Your task to perform on an android device: open app "eBay: The shopping marketplace" (install if not already installed) Image 0: 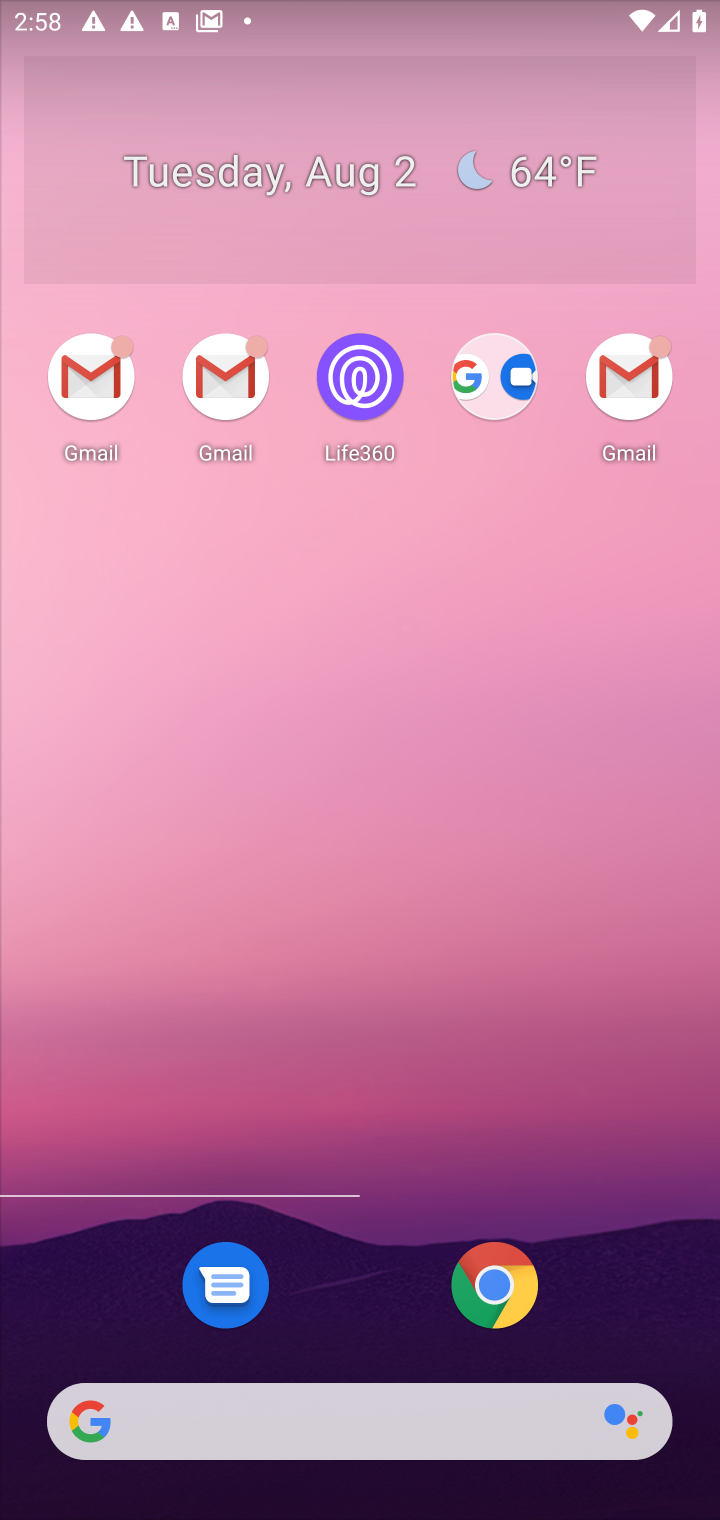
Step 0: drag from (541, 1125) to (279, 139)
Your task to perform on an android device: open app "eBay: The shopping marketplace" (install if not already installed) Image 1: 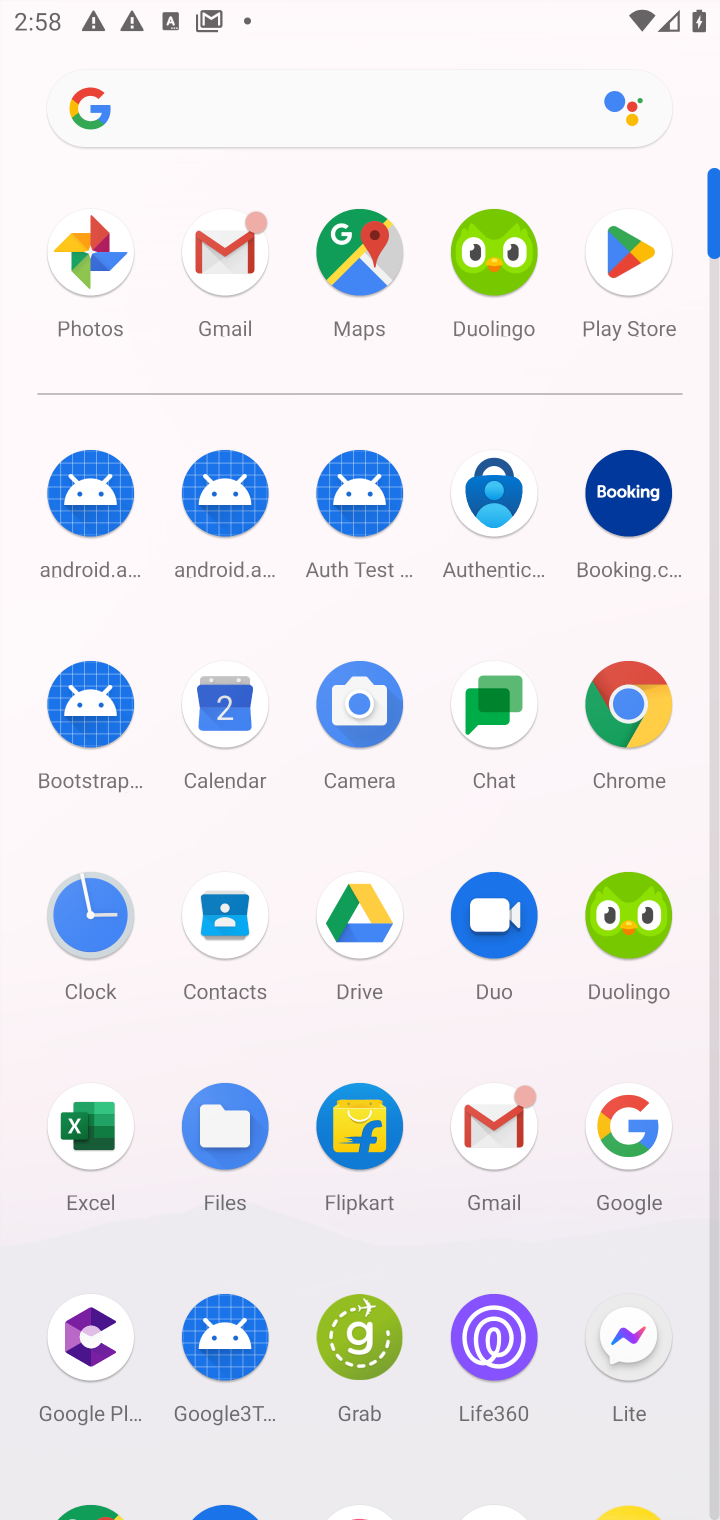
Step 1: drag from (437, 1271) to (400, 330)
Your task to perform on an android device: open app "eBay: The shopping marketplace" (install if not already installed) Image 2: 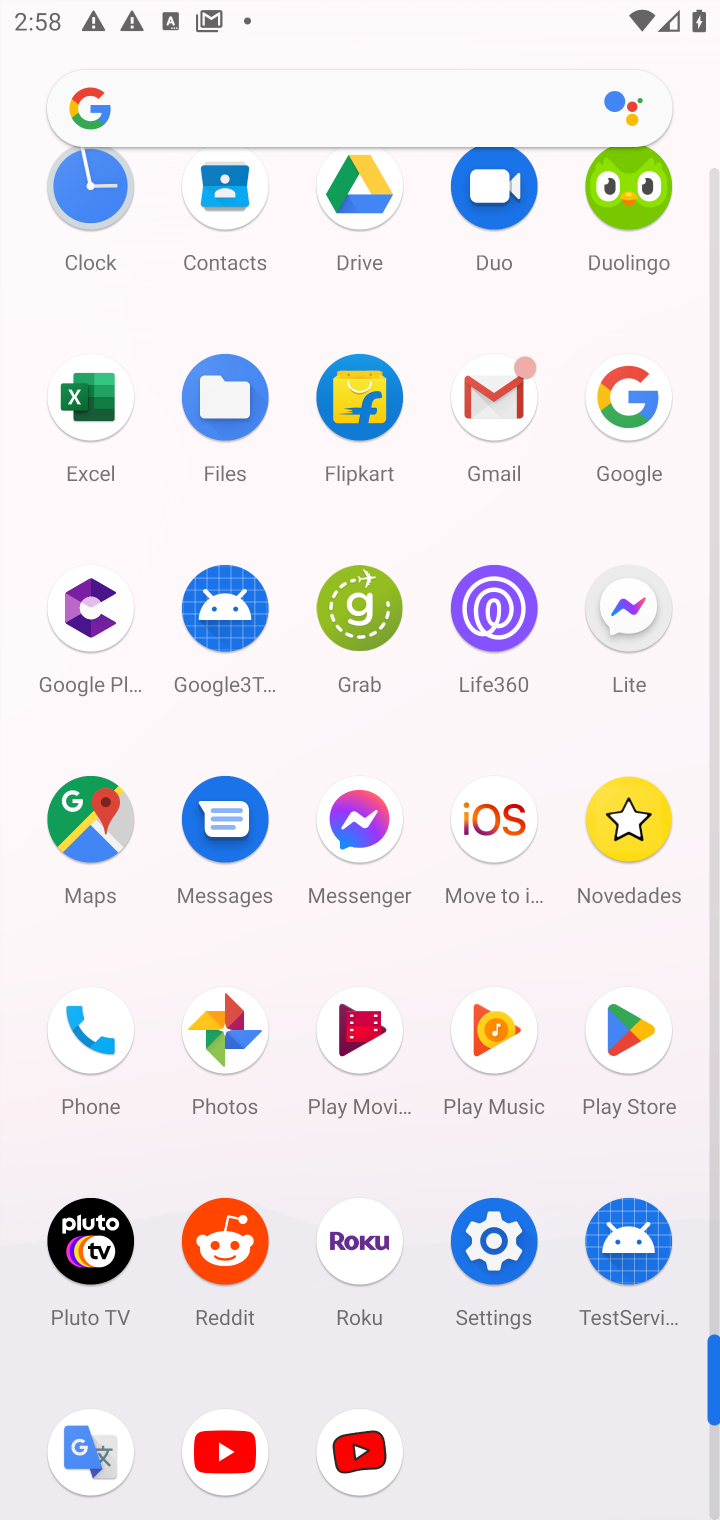
Step 2: click (623, 1059)
Your task to perform on an android device: open app "eBay: The shopping marketplace" (install if not already installed) Image 3: 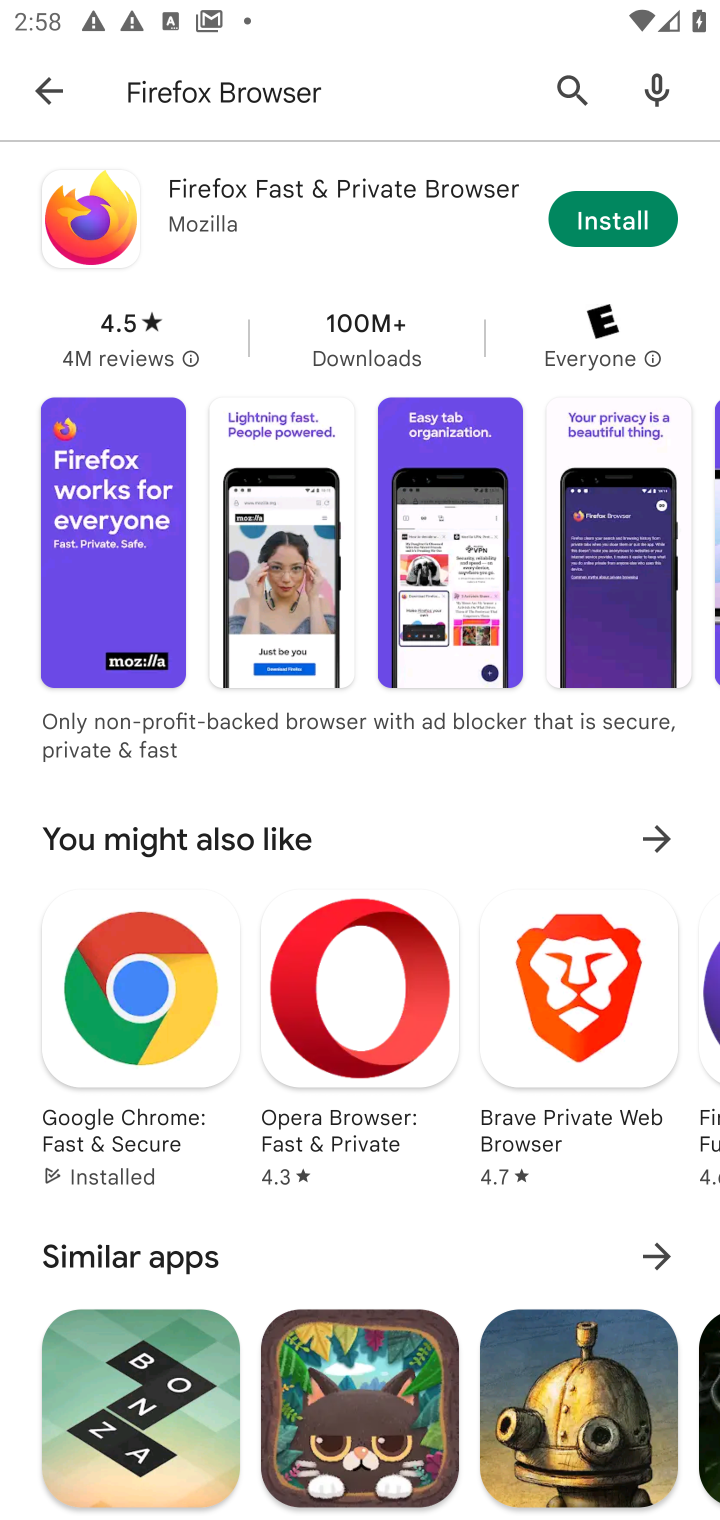
Step 3: click (370, 100)
Your task to perform on an android device: open app "eBay: The shopping marketplace" (install if not already installed) Image 4: 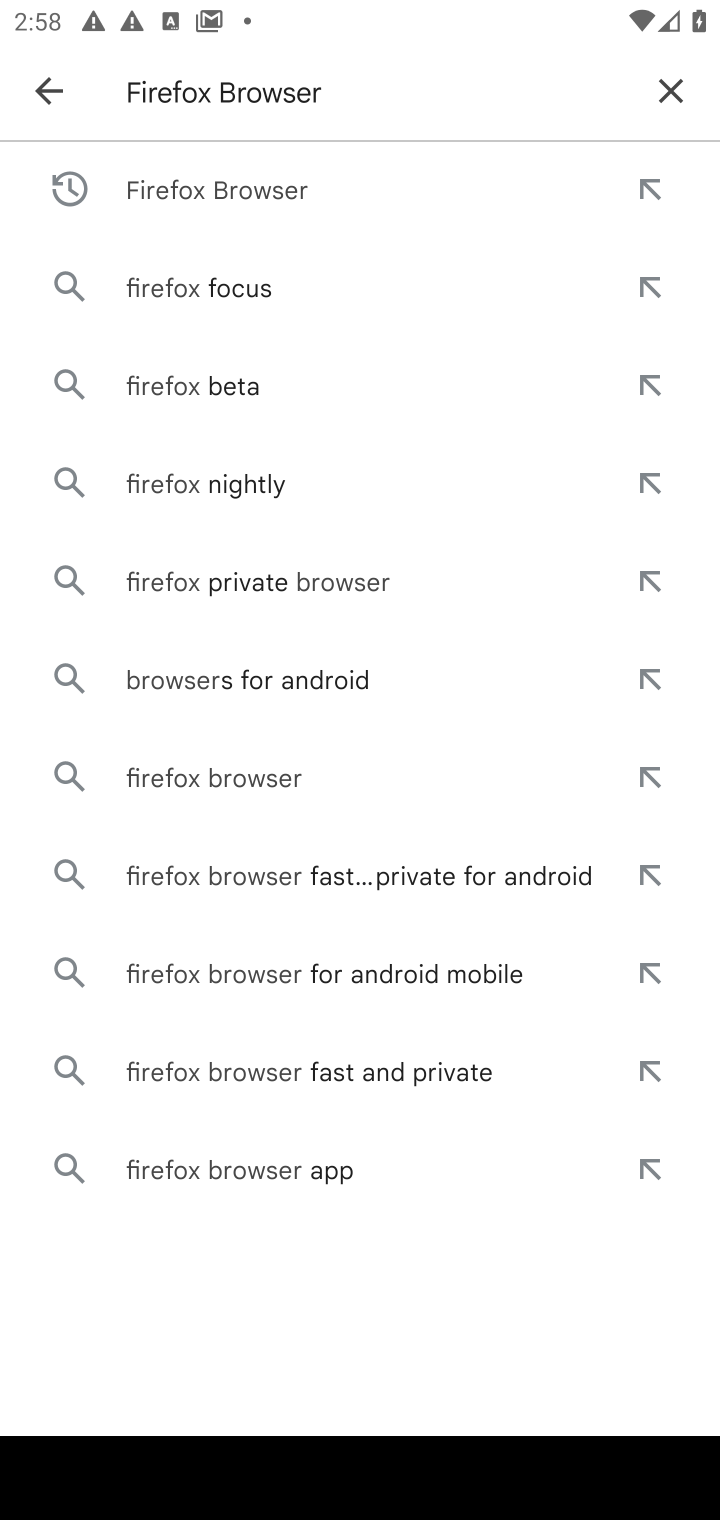
Step 4: click (670, 75)
Your task to perform on an android device: open app "eBay: The shopping marketplace" (install if not already installed) Image 5: 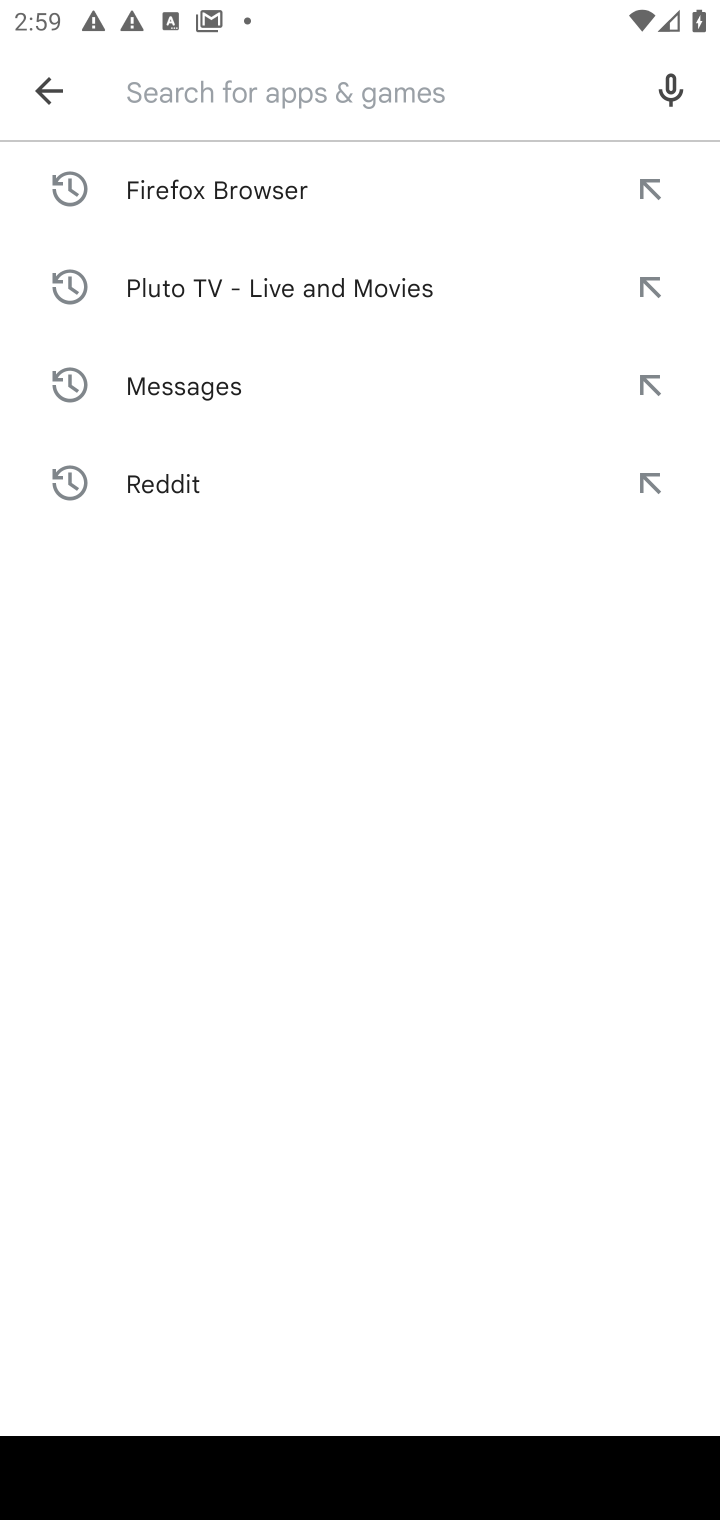
Step 5: type "eBay: The shopping marketplace"
Your task to perform on an android device: open app "eBay: The shopping marketplace" (install if not already installed) Image 6: 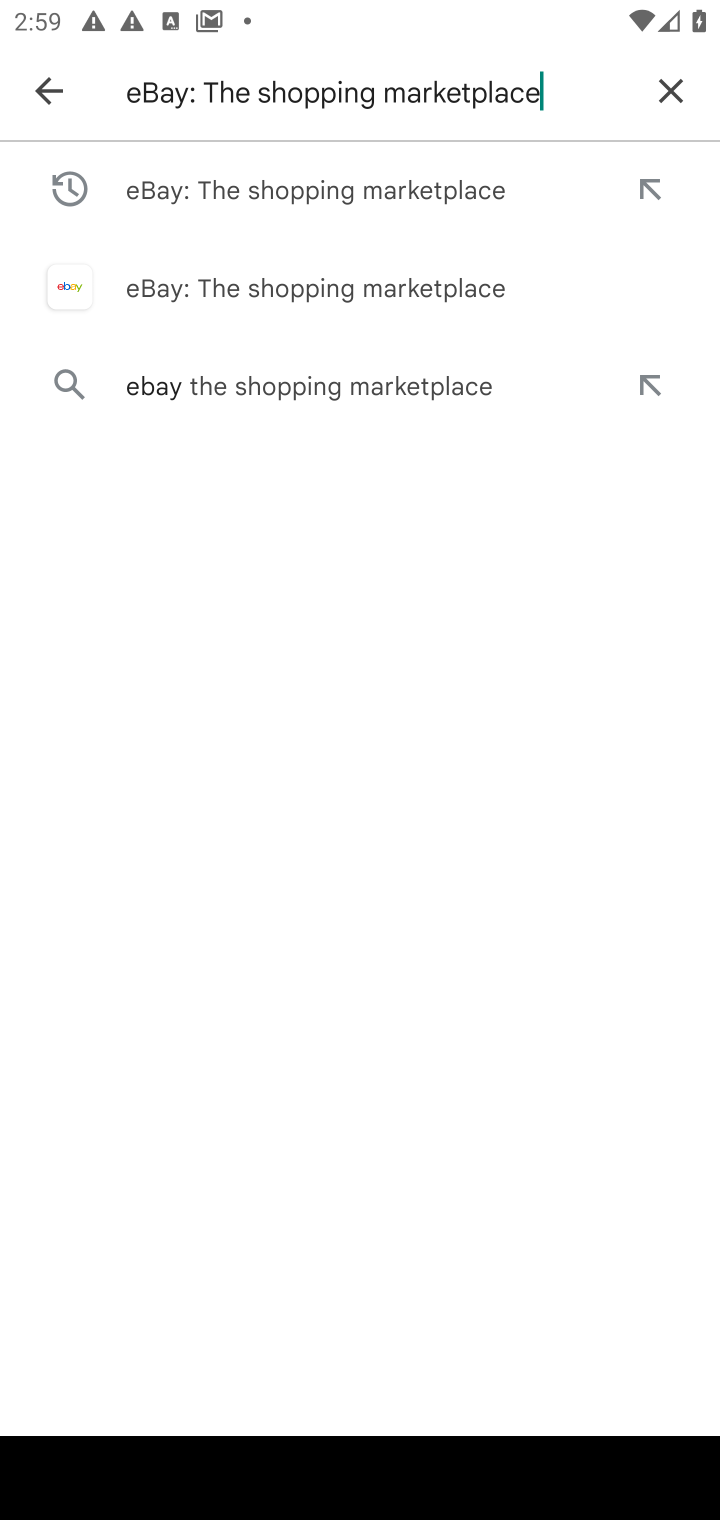
Step 6: click (330, 282)
Your task to perform on an android device: open app "eBay: The shopping marketplace" (install if not already installed) Image 7: 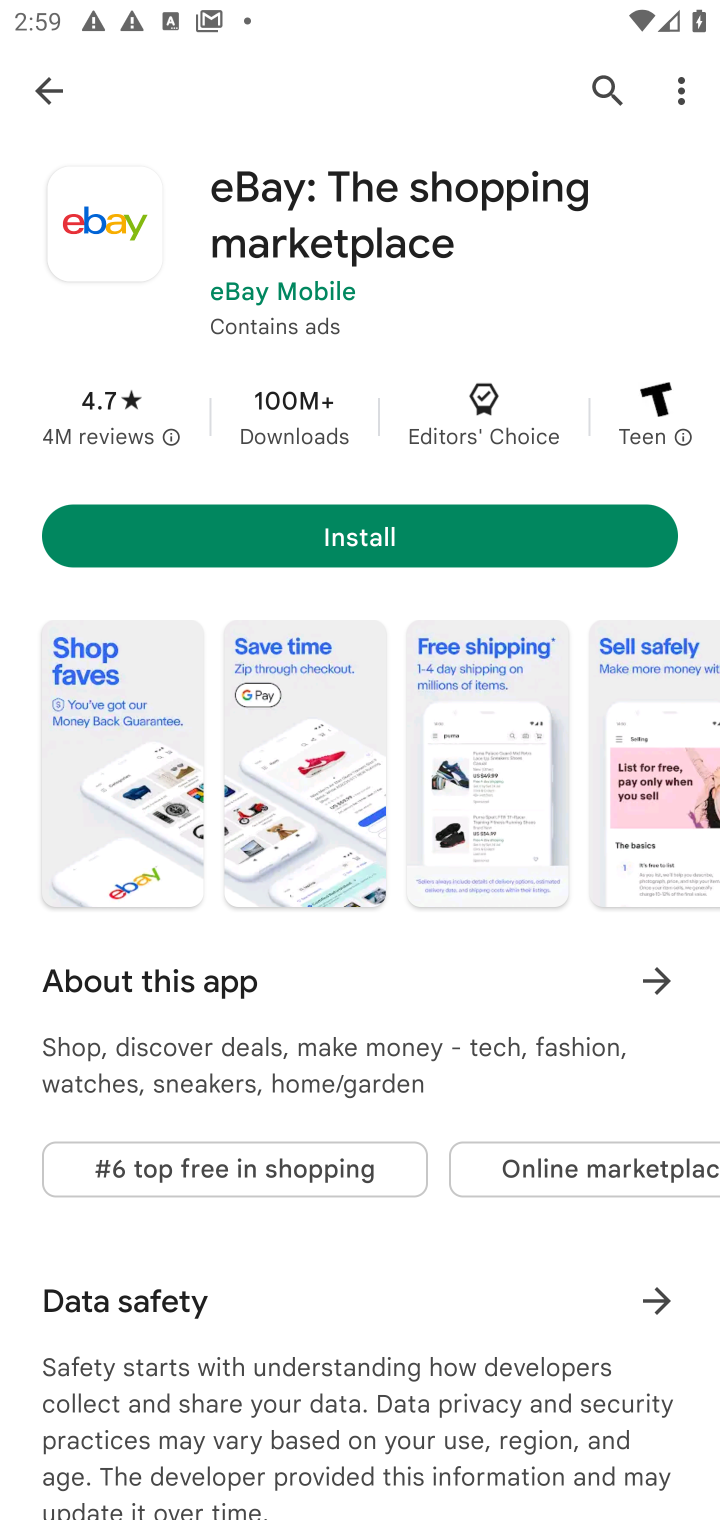
Step 7: click (460, 557)
Your task to perform on an android device: open app "eBay: The shopping marketplace" (install if not already installed) Image 8: 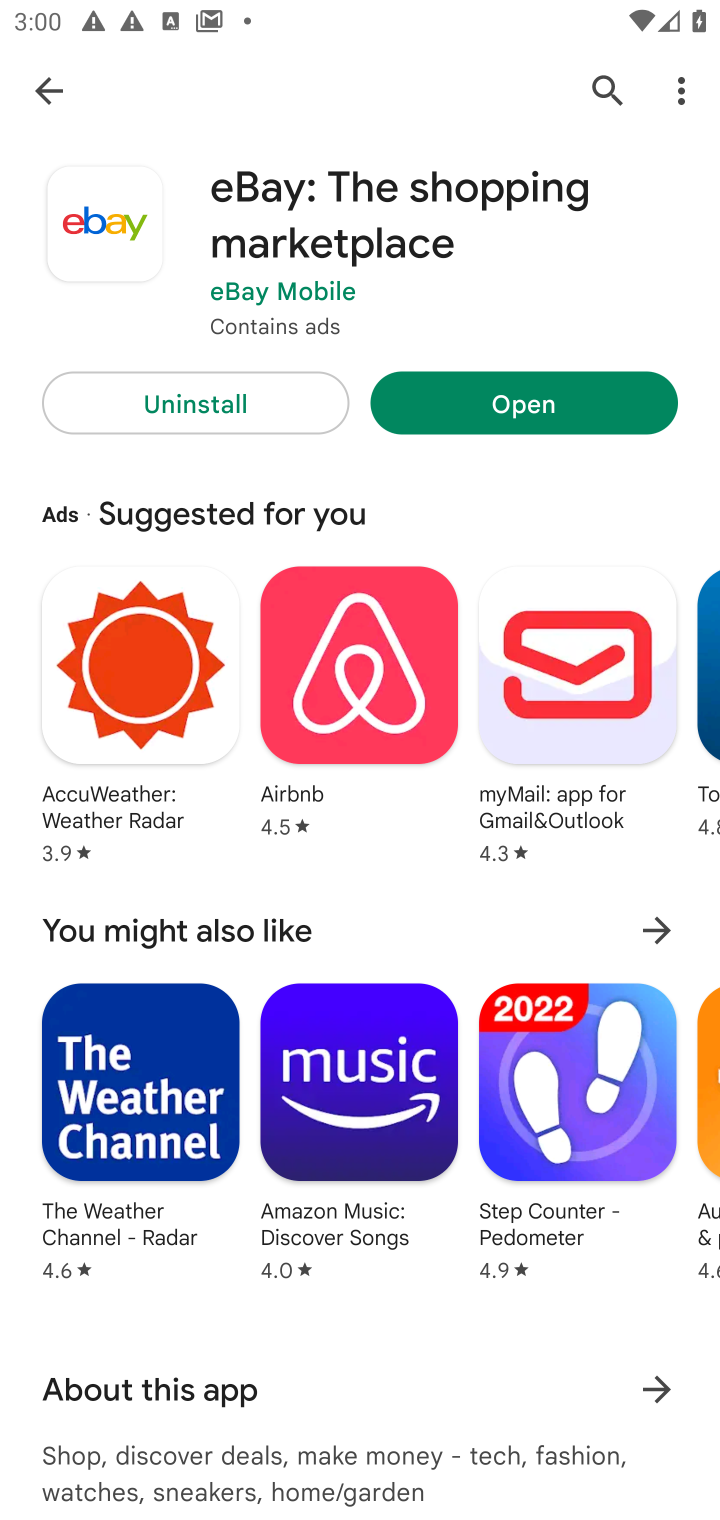
Step 8: click (530, 395)
Your task to perform on an android device: open app "eBay: The shopping marketplace" (install if not already installed) Image 9: 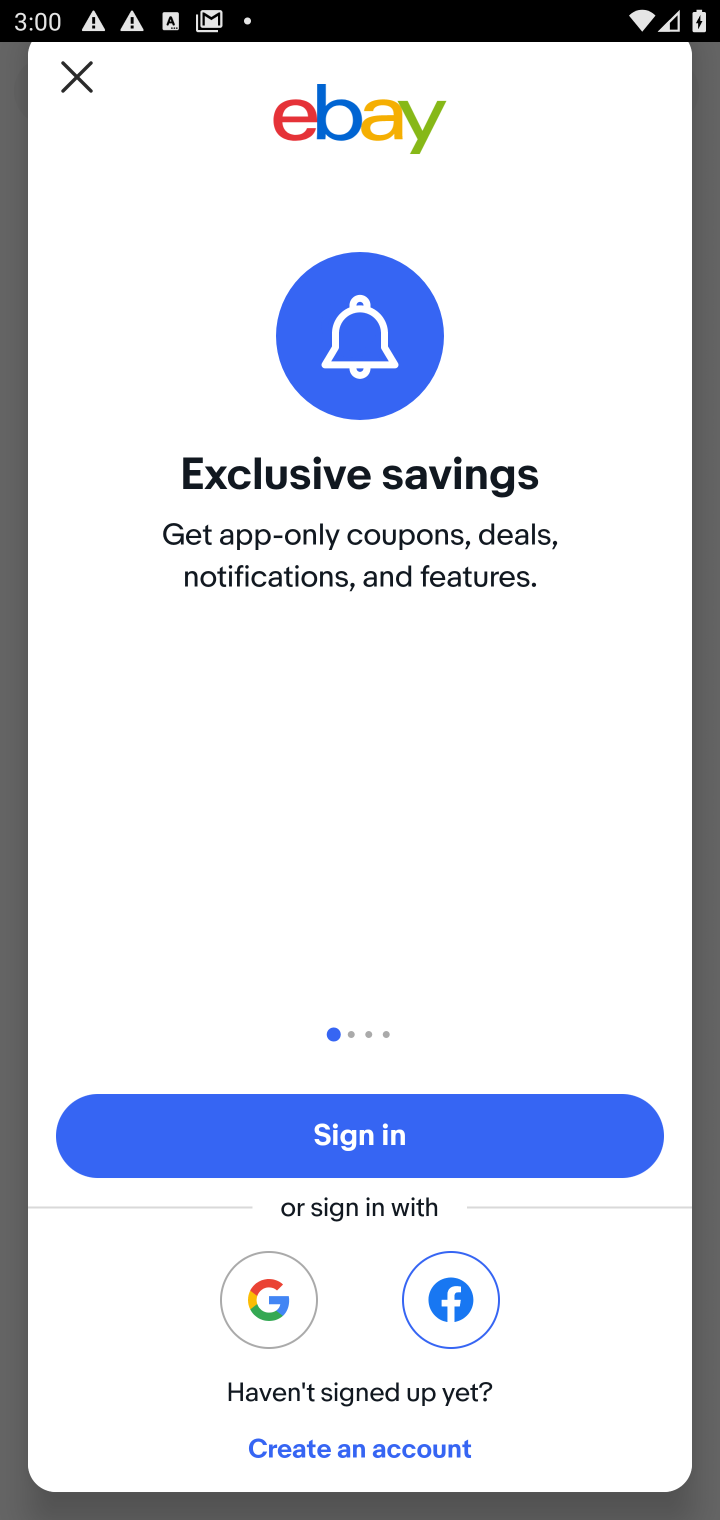
Step 9: task complete